Your task to perform on an android device: turn off picture-in-picture Image 0: 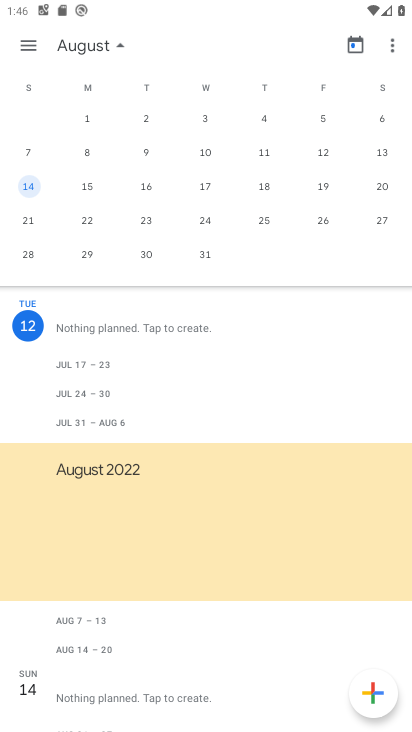
Step 0: press home button
Your task to perform on an android device: turn off picture-in-picture Image 1: 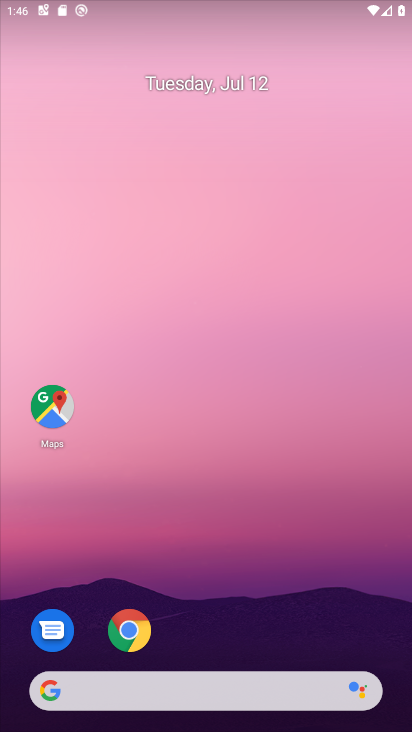
Step 1: drag from (188, 609) to (189, 279)
Your task to perform on an android device: turn off picture-in-picture Image 2: 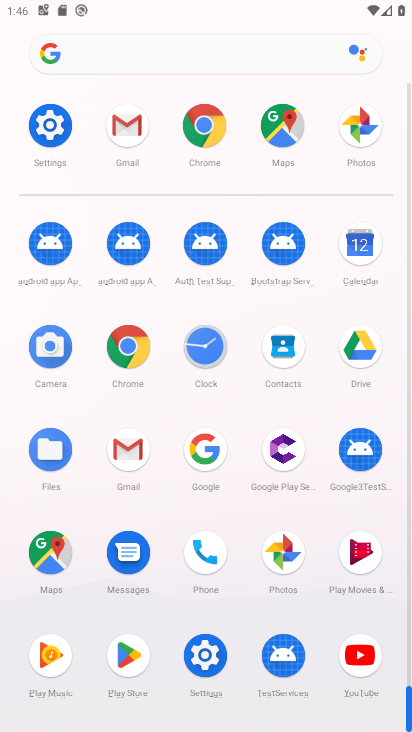
Step 2: click (57, 138)
Your task to perform on an android device: turn off picture-in-picture Image 3: 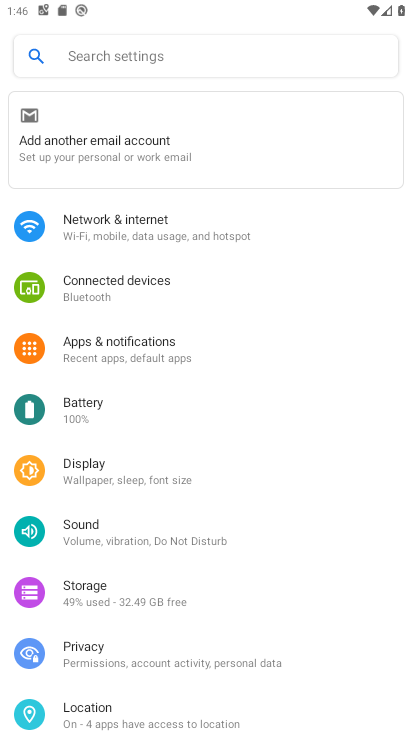
Step 3: click (177, 351)
Your task to perform on an android device: turn off picture-in-picture Image 4: 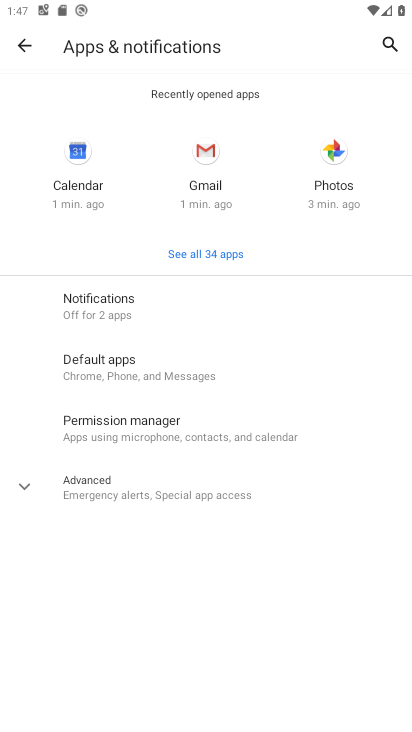
Step 4: click (92, 486)
Your task to perform on an android device: turn off picture-in-picture Image 5: 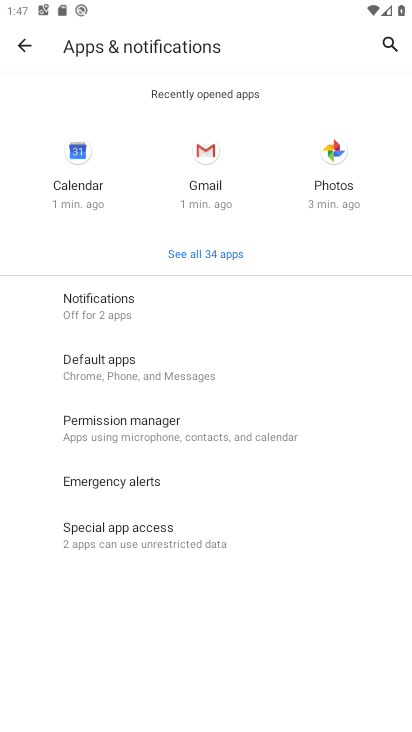
Step 5: click (141, 527)
Your task to perform on an android device: turn off picture-in-picture Image 6: 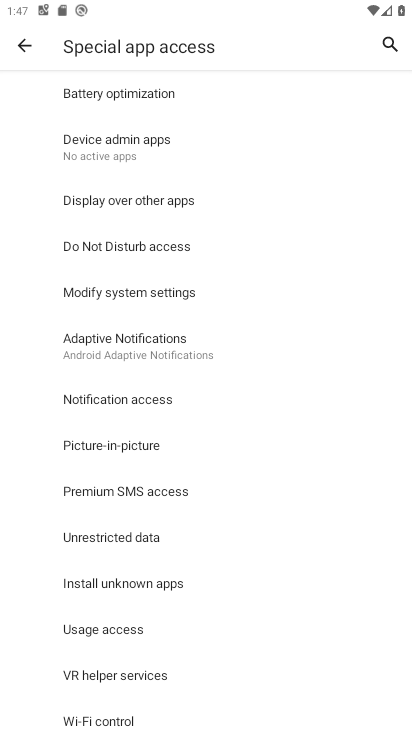
Step 6: click (141, 443)
Your task to perform on an android device: turn off picture-in-picture Image 7: 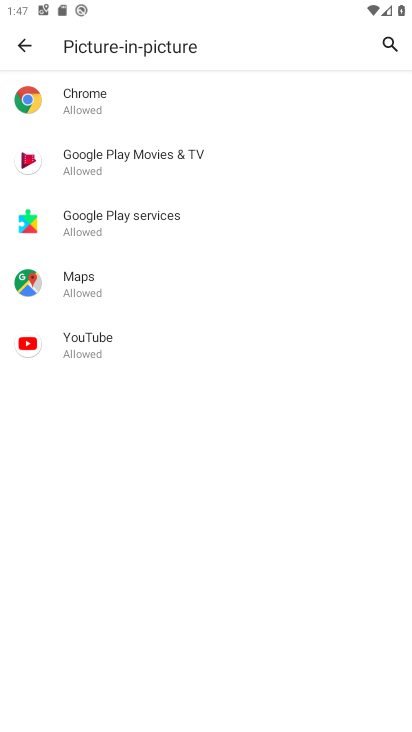
Step 7: click (125, 104)
Your task to perform on an android device: turn off picture-in-picture Image 8: 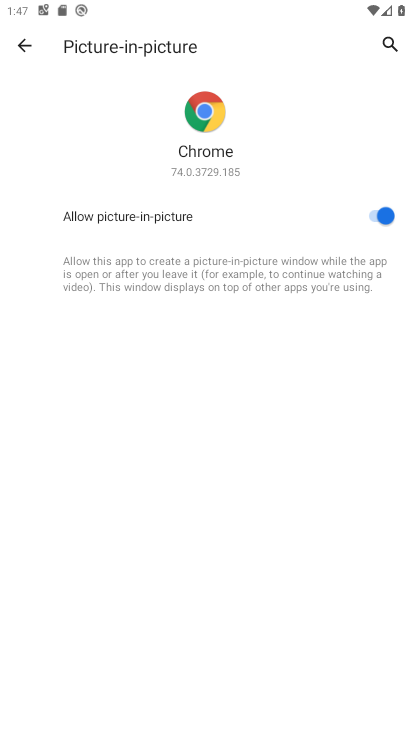
Step 8: click (375, 225)
Your task to perform on an android device: turn off picture-in-picture Image 9: 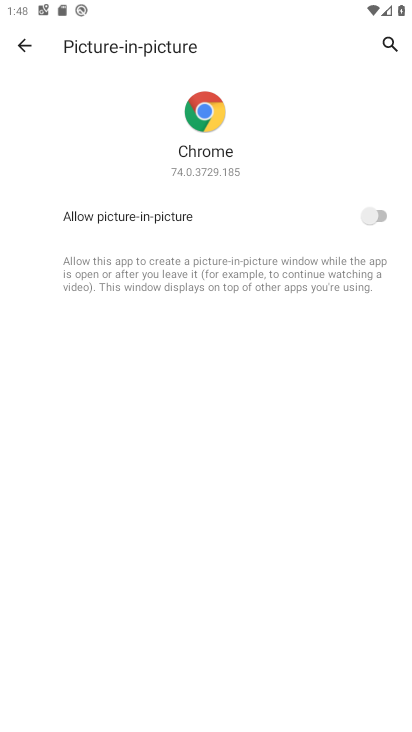
Step 9: task complete